Your task to perform on an android device: turn on the 12-hour format for clock Image 0: 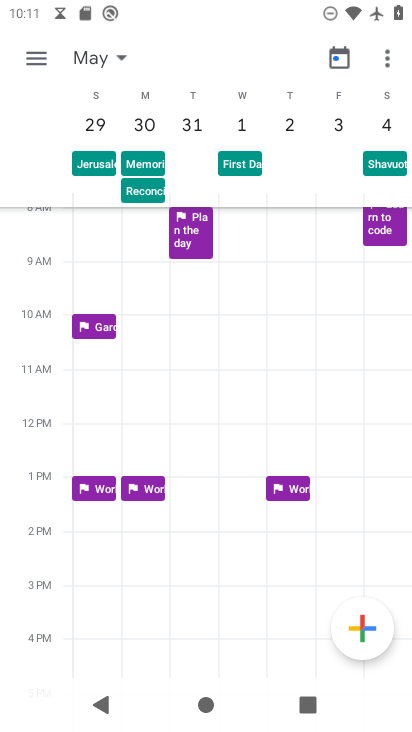
Step 0: press home button
Your task to perform on an android device: turn on the 12-hour format for clock Image 1: 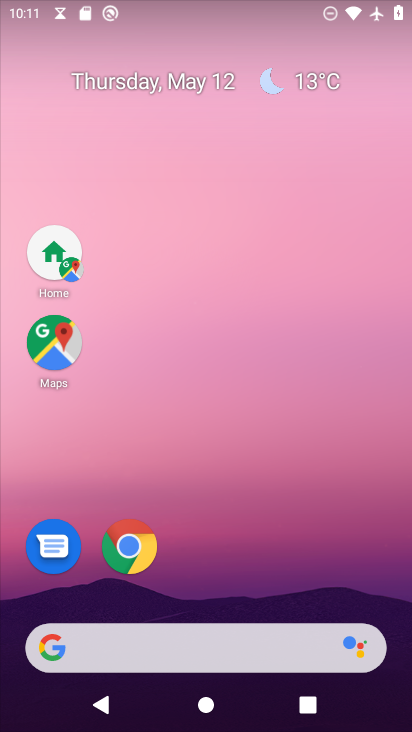
Step 1: drag from (148, 650) to (268, 120)
Your task to perform on an android device: turn on the 12-hour format for clock Image 2: 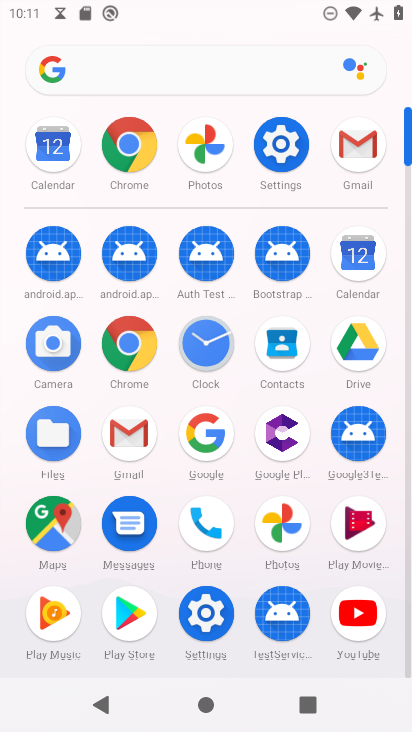
Step 2: click (212, 347)
Your task to perform on an android device: turn on the 12-hour format for clock Image 3: 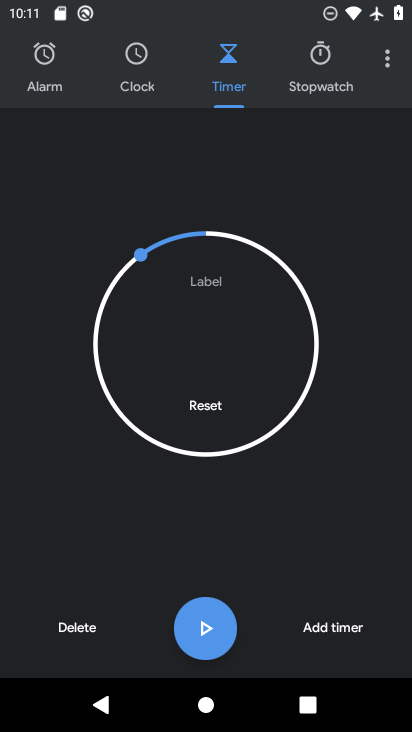
Step 3: click (388, 60)
Your task to perform on an android device: turn on the 12-hour format for clock Image 4: 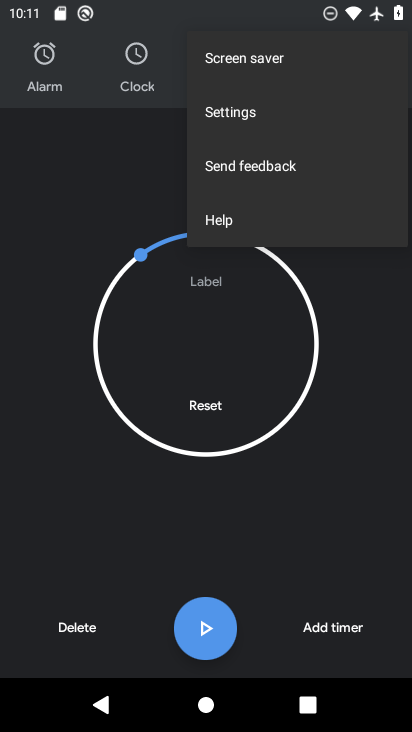
Step 4: click (243, 115)
Your task to perform on an android device: turn on the 12-hour format for clock Image 5: 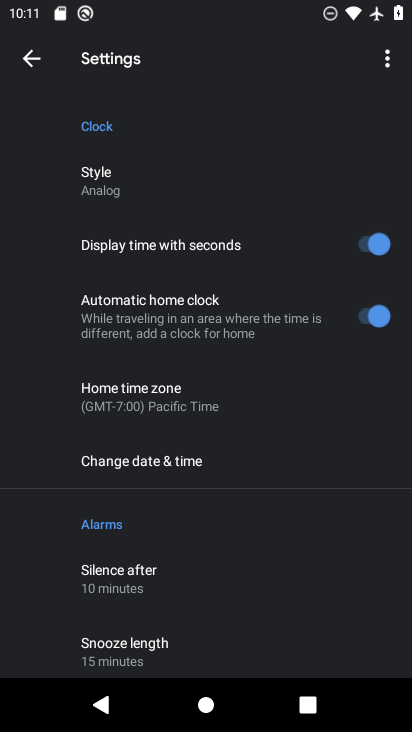
Step 5: drag from (186, 575) to (294, 362)
Your task to perform on an android device: turn on the 12-hour format for clock Image 6: 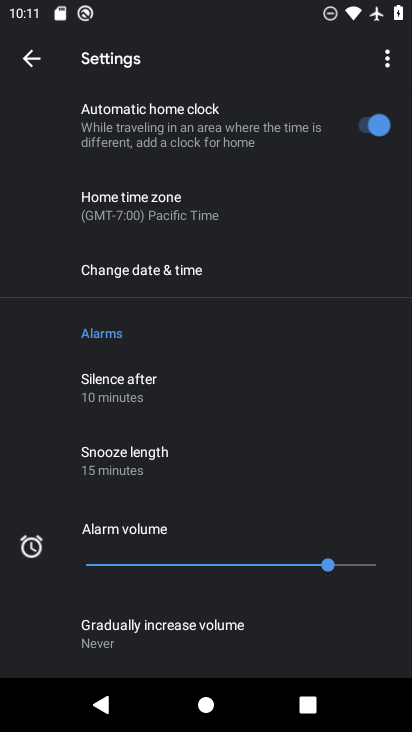
Step 6: click (184, 279)
Your task to perform on an android device: turn on the 12-hour format for clock Image 7: 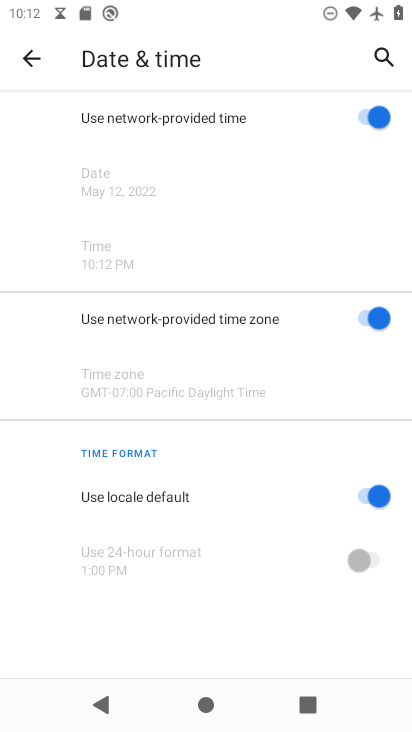
Step 7: task complete